Your task to perform on an android device: turn notification dots off Image 0: 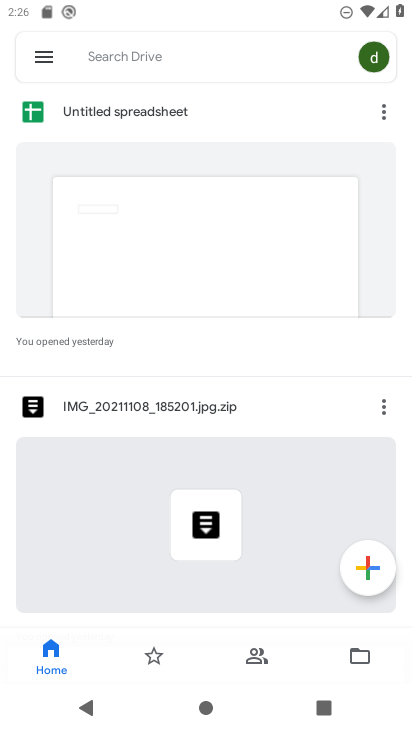
Step 0: press home button
Your task to perform on an android device: turn notification dots off Image 1: 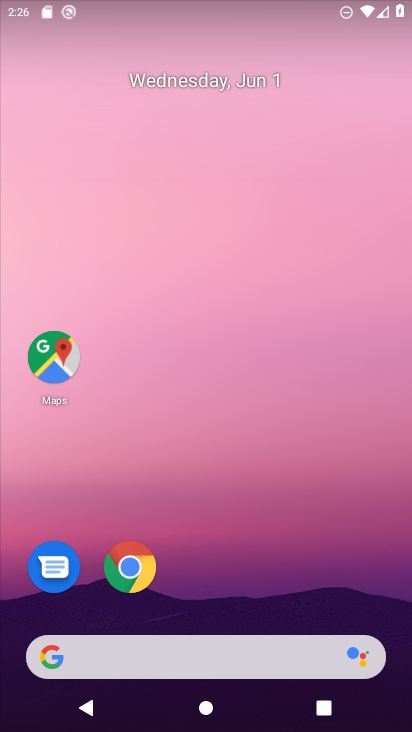
Step 1: drag from (170, 609) to (257, 113)
Your task to perform on an android device: turn notification dots off Image 2: 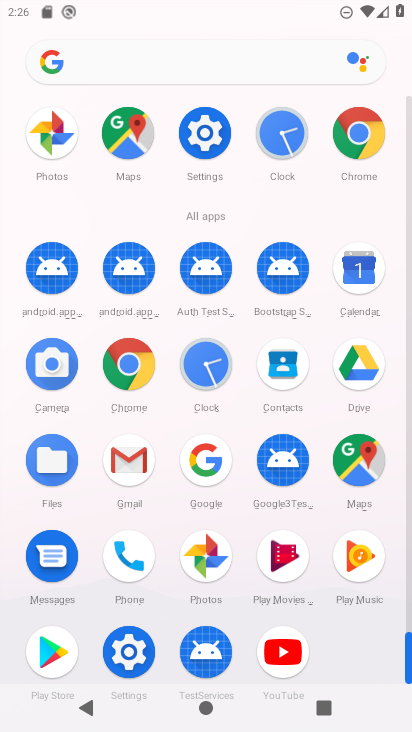
Step 2: click (139, 656)
Your task to perform on an android device: turn notification dots off Image 3: 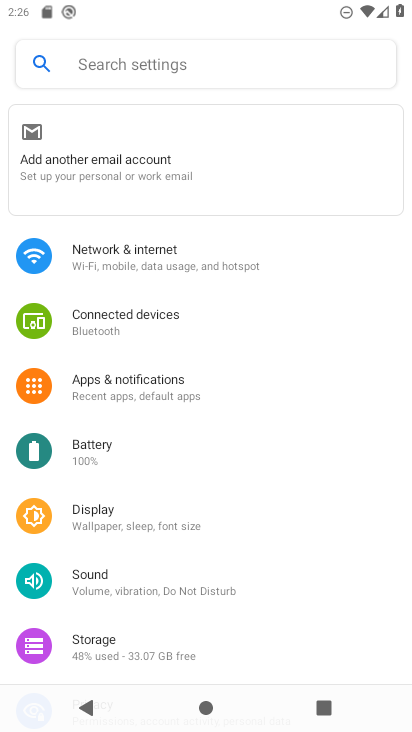
Step 3: click (230, 385)
Your task to perform on an android device: turn notification dots off Image 4: 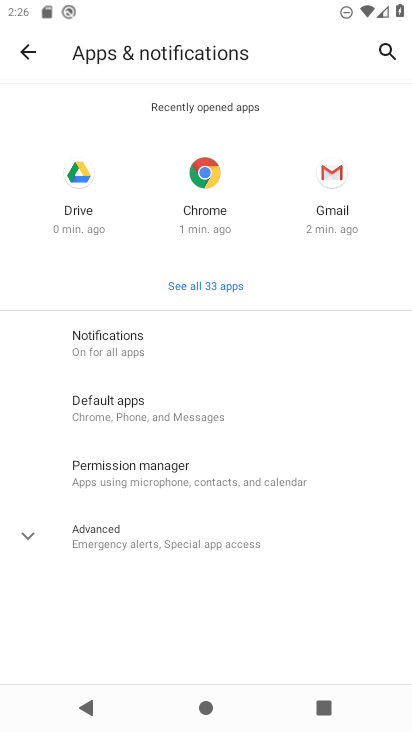
Step 4: click (153, 357)
Your task to perform on an android device: turn notification dots off Image 5: 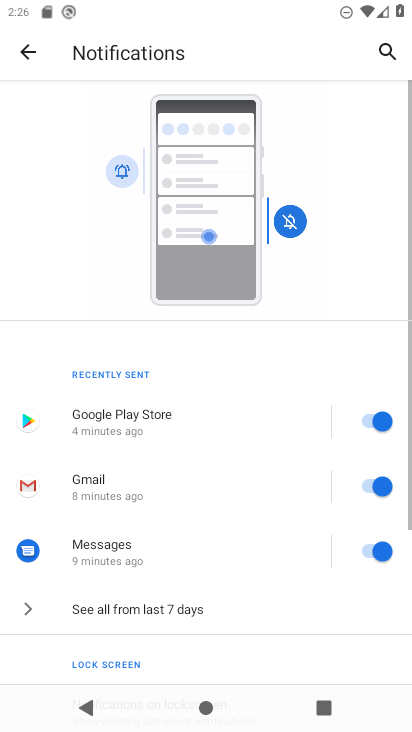
Step 5: drag from (204, 595) to (318, 166)
Your task to perform on an android device: turn notification dots off Image 6: 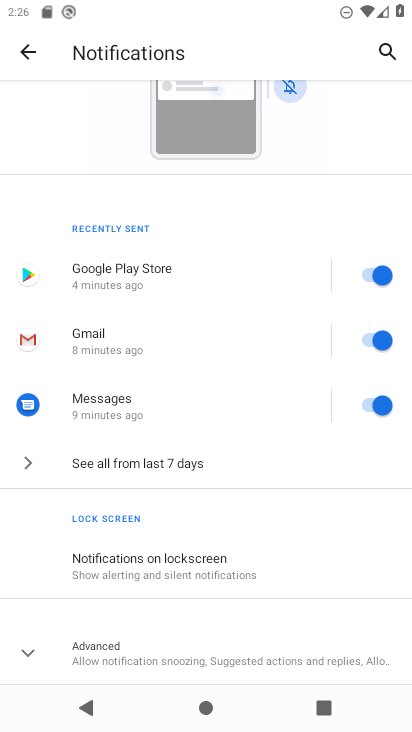
Step 6: click (193, 655)
Your task to perform on an android device: turn notification dots off Image 7: 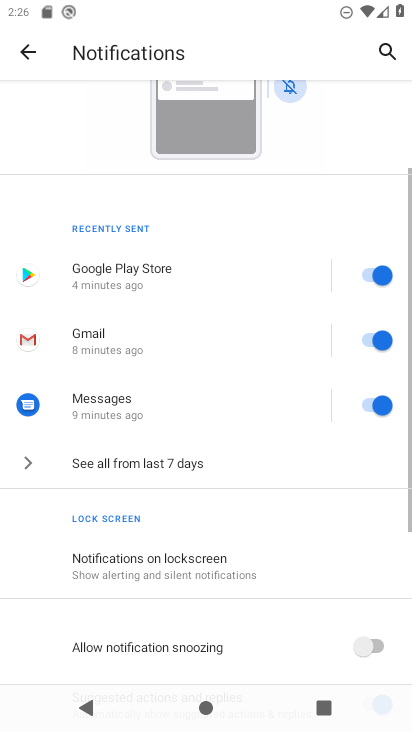
Step 7: drag from (192, 654) to (302, 232)
Your task to perform on an android device: turn notification dots off Image 8: 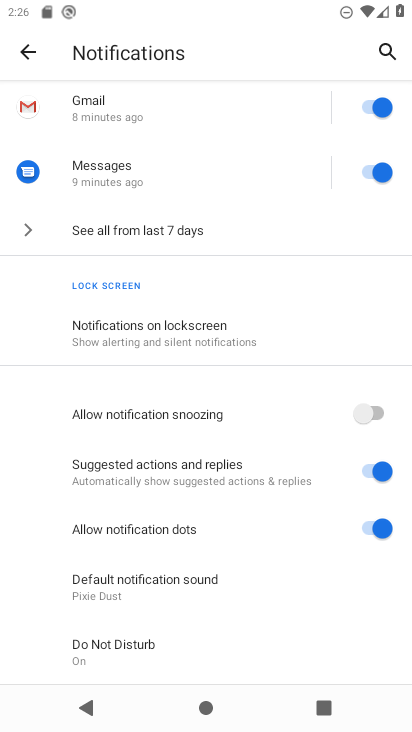
Step 8: click (372, 531)
Your task to perform on an android device: turn notification dots off Image 9: 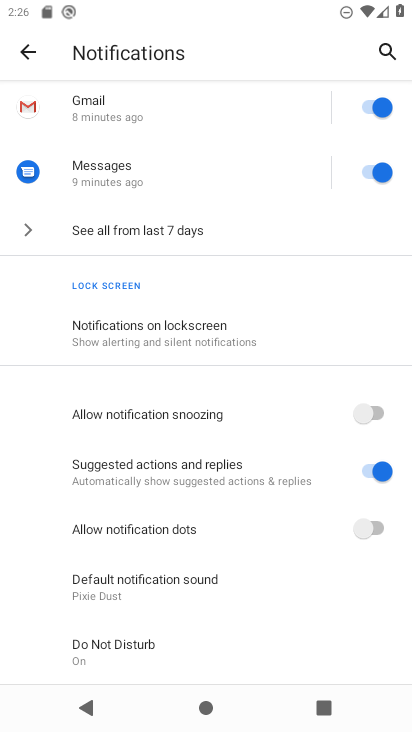
Step 9: task complete